Your task to perform on an android device: clear history in the chrome app Image 0: 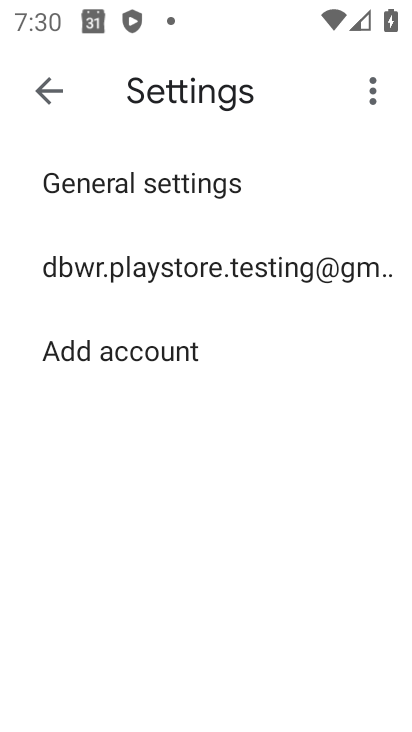
Step 0: press home button
Your task to perform on an android device: clear history in the chrome app Image 1: 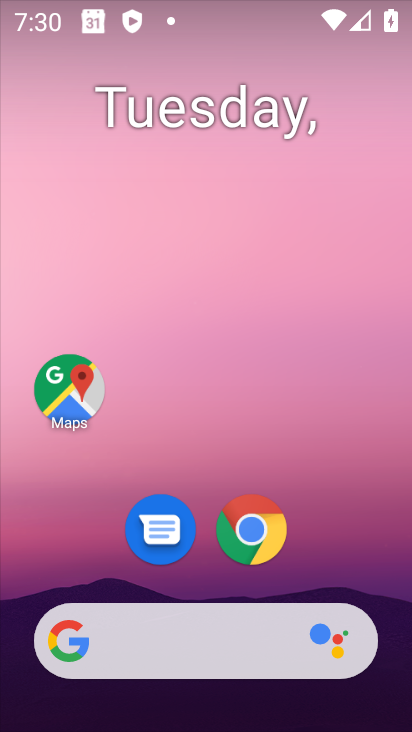
Step 1: drag from (161, 629) to (343, 49)
Your task to perform on an android device: clear history in the chrome app Image 2: 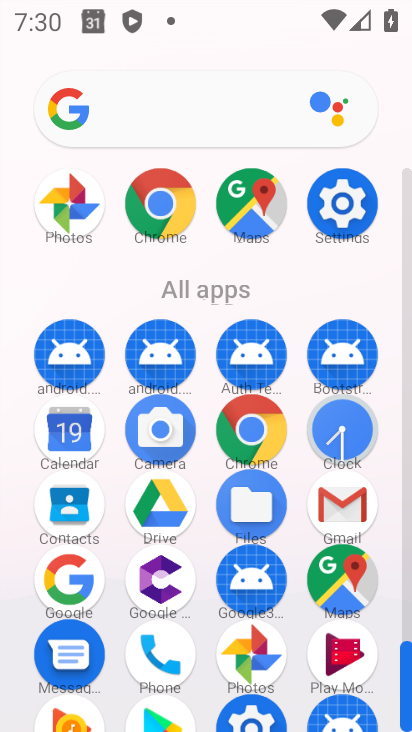
Step 2: click (167, 209)
Your task to perform on an android device: clear history in the chrome app Image 3: 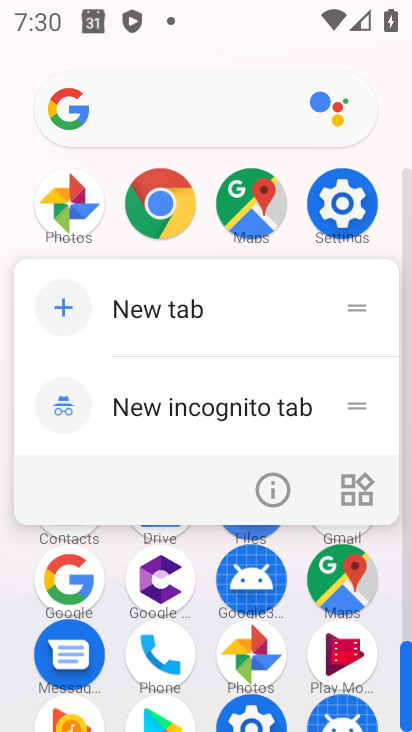
Step 3: click (158, 213)
Your task to perform on an android device: clear history in the chrome app Image 4: 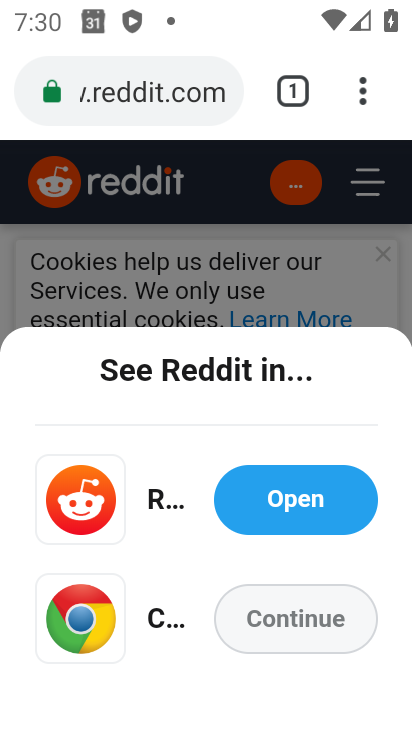
Step 4: press back button
Your task to perform on an android device: clear history in the chrome app Image 5: 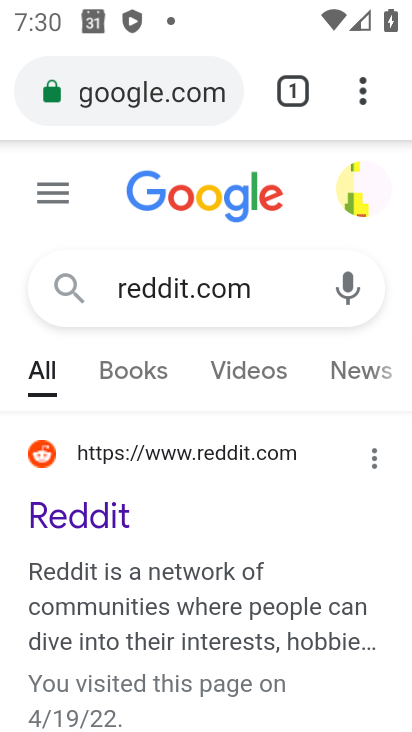
Step 5: click (355, 94)
Your task to perform on an android device: clear history in the chrome app Image 6: 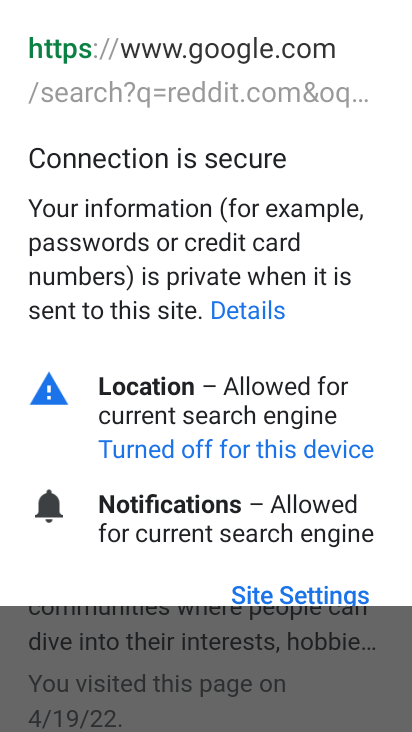
Step 6: press back button
Your task to perform on an android device: clear history in the chrome app Image 7: 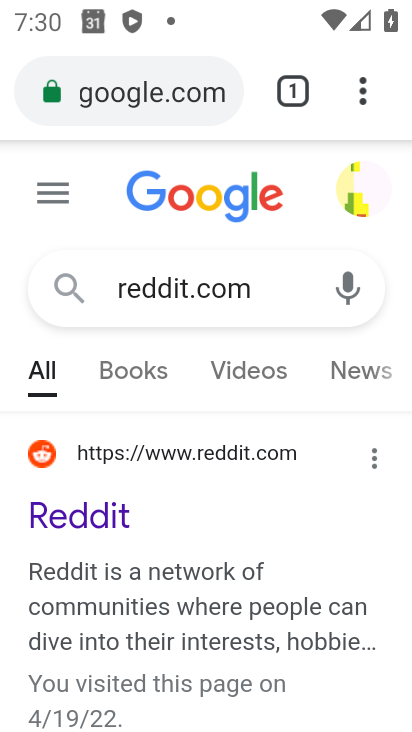
Step 7: click (363, 100)
Your task to perform on an android device: clear history in the chrome app Image 8: 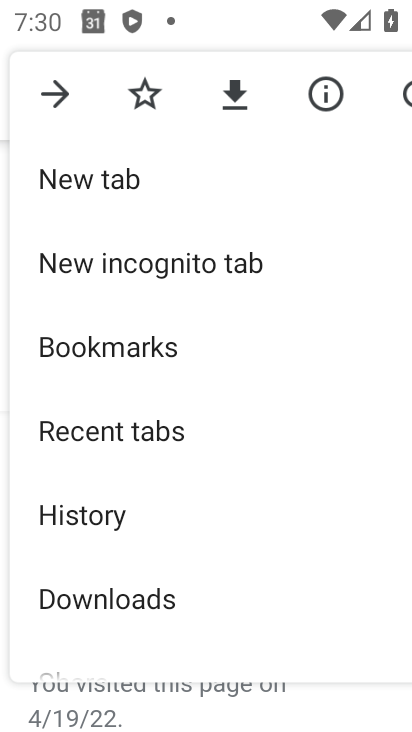
Step 8: click (90, 516)
Your task to perform on an android device: clear history in the chrome app Image 9: 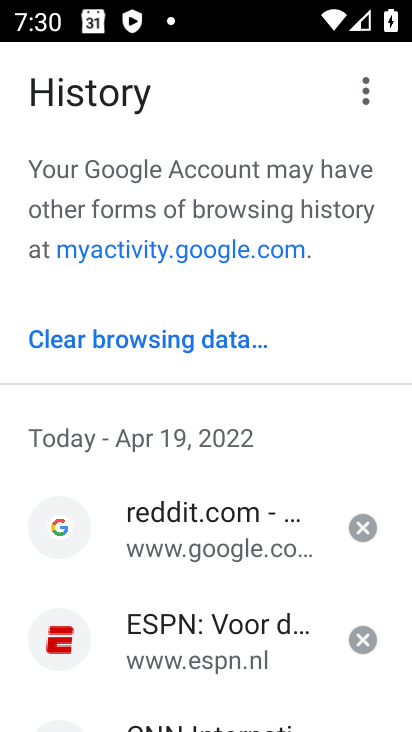
Step 9: click (170, 327)
Your task to perform on an android device: clear history in the chrome app Image 10: 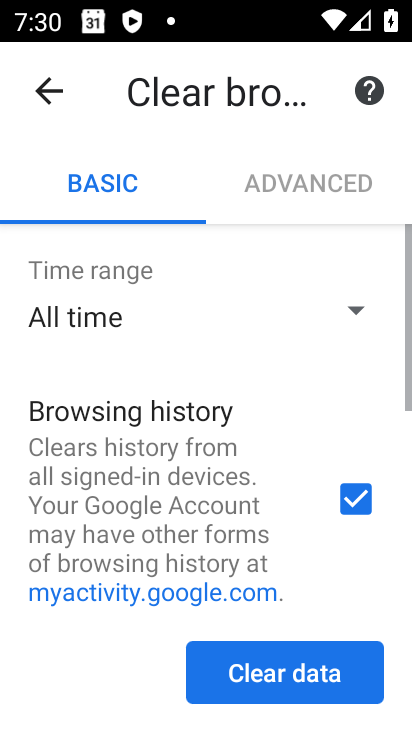
Step 10: drag from (126, 519) to (301, 249)
Your task to perform on an android device: clear history in the chrome app Image 11: 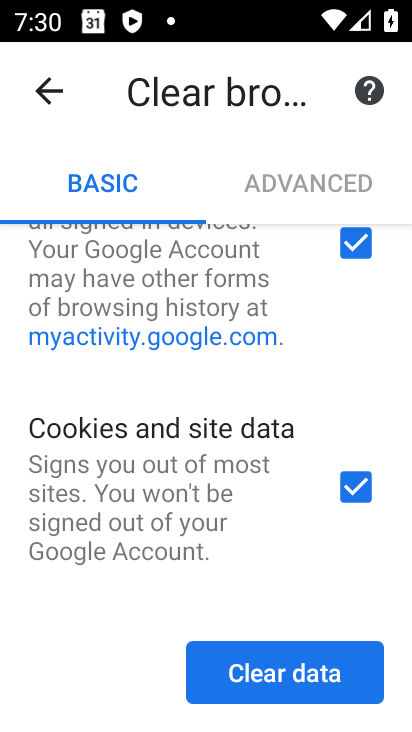
Step 11: drag from (253, 532) to (411, 151)
Your task to perform on an android device: clear history in the chrome app Image 12: 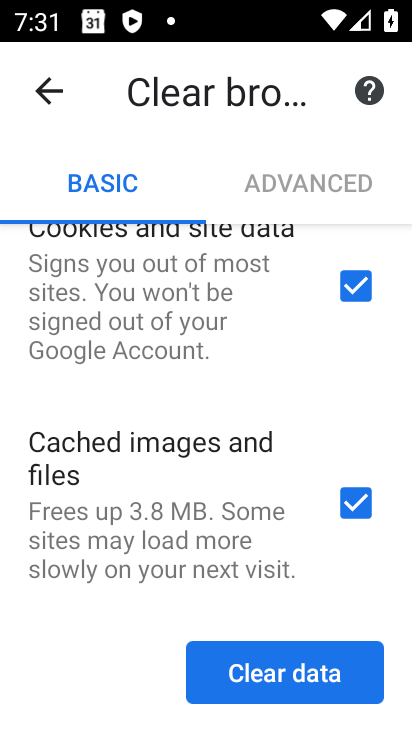
Step 12: drag from (232, 498) to (314, 252)
Your task to perform on an android device: clear history in the chrome app Image 13: 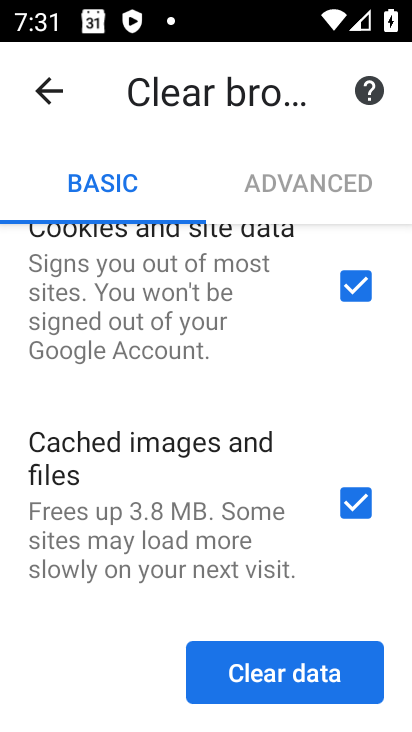
Step 13: click (284, 676)
Your task to perform on an android device: clear history in the chrome app Image 14: 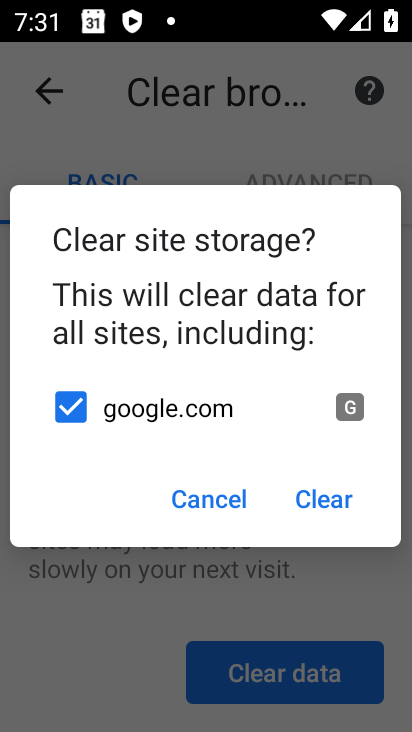
Step 14: click (318, 496)
Your task to perform on an android device: clear history in the chrome app Image 15: 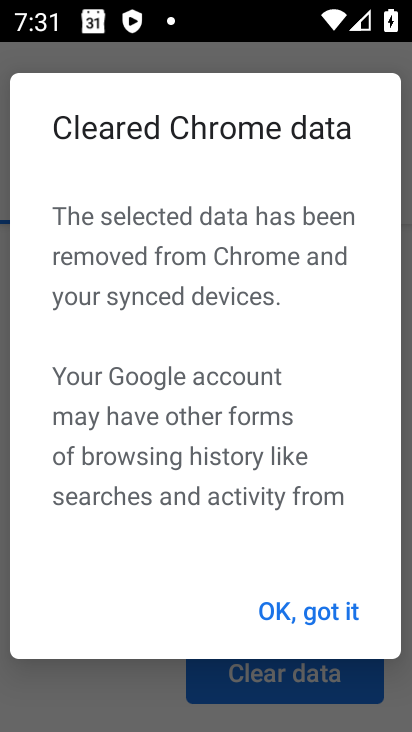
Step 15: click (333, 610)
Your task to perform on an android device: clear history in the chrome app Image 16: 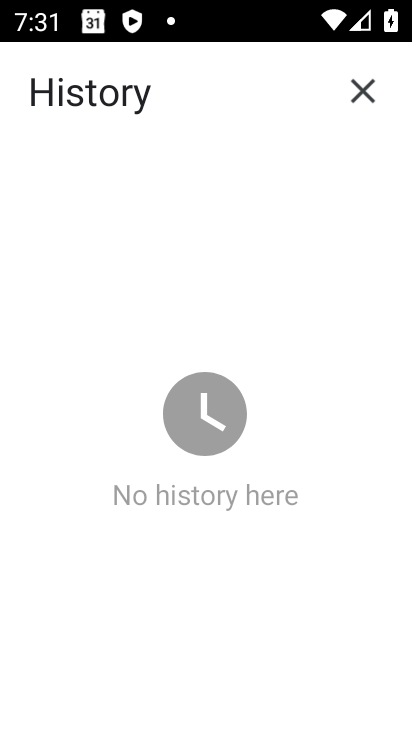
Step 16: task complete